Your task to perform on an android device: Open the phone app and click the voicemail tab. Image 0: 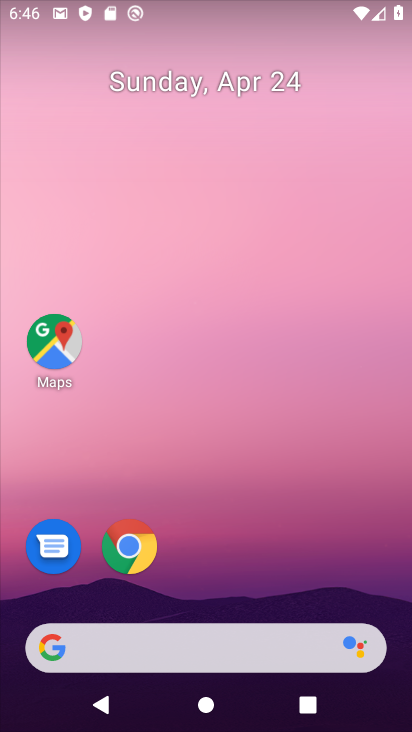
Step 0: drag from (308, 24) to (263, 4)
Your task to perform on an android device: Open the phone app and click the voicemail tab. Image 1: 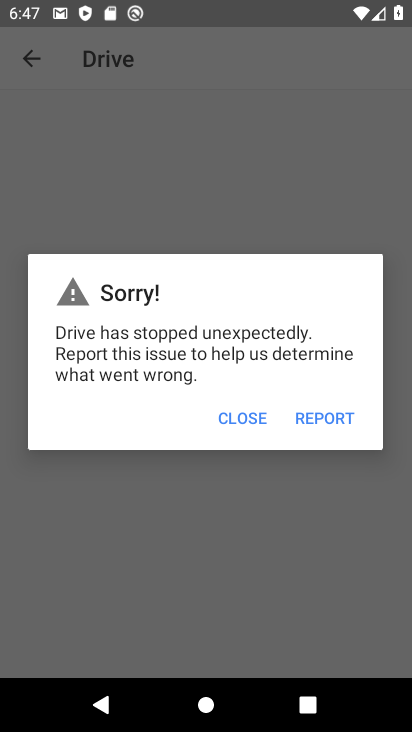
Step 1: press home button
Your task to perform on an android device: Open the phone app and click the voicemail tab. Image 2: 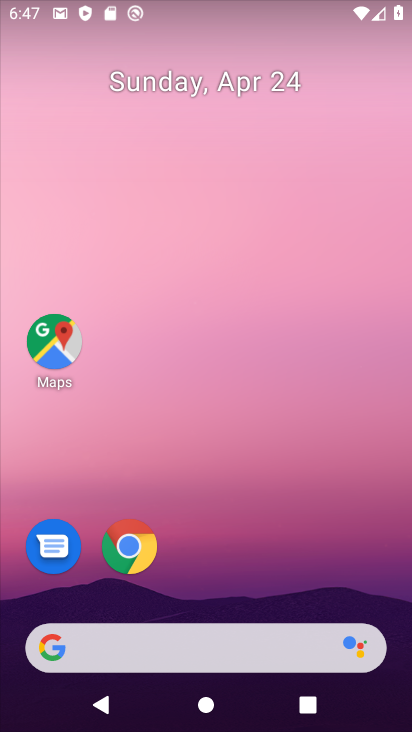
Step 2: drag from (274, 569) to (233, 41)
Your task to perform on an android device: Open the phone app and click the voicemail tab. Image 3: 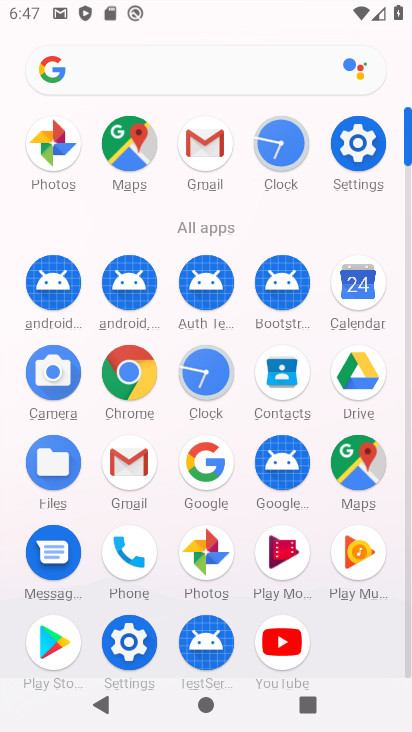
Step 3: click (127, 557)
Your task to perform on an android device: Open the phone app and click the voicemail tab. Image 4: 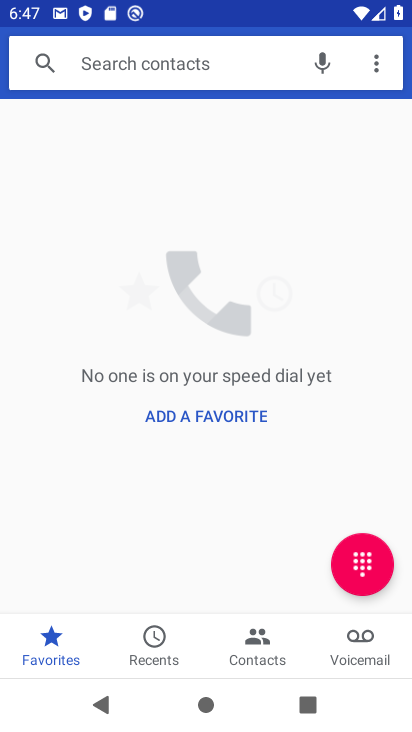
Step 4: click (353, 641)
Your task to perform on an android device: Open the phone app and click the voicemail tab. Image 5: 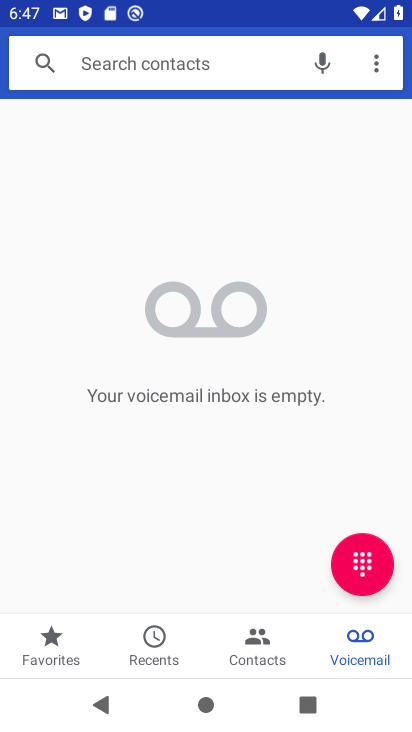
Step 5: task complete